Your task to perform on an android device: Find coffee shops on Maps Image 0: 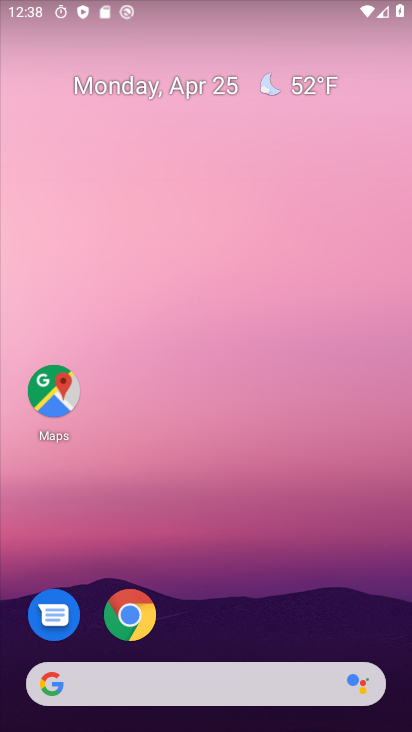
Step 0: drag from (211, 650) to (153, 33)
Your task to perform on an android device: Find coffee shops on Maps Image 1: 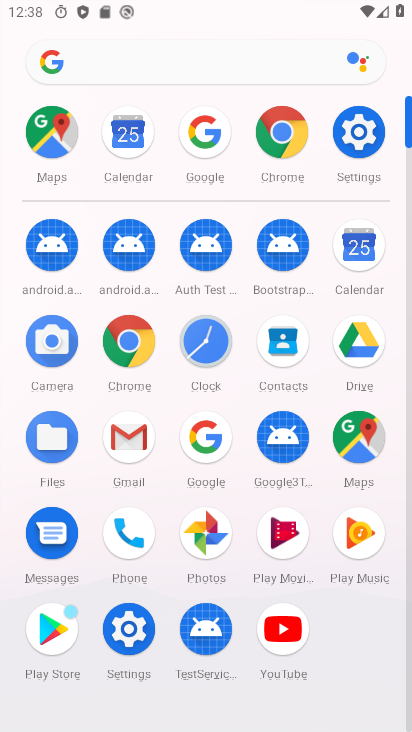
Step 1: click (350, 443)
Your task to perform on an android device: Find coffee shops on Maps Image 2: 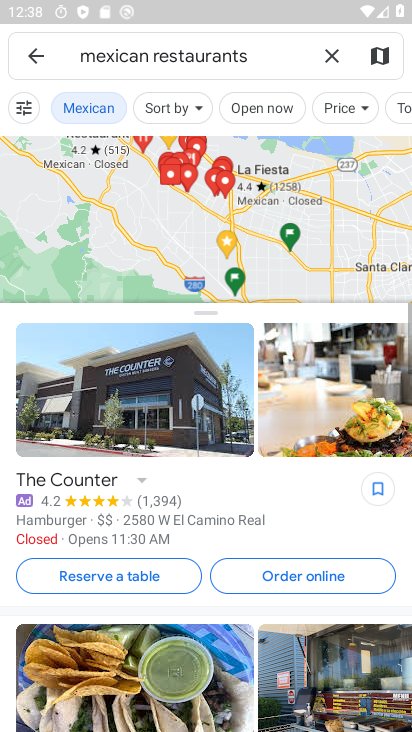
Step 2: click (317, 60)
Your task to perform on an android device: Find coffee shops on Maps Image 3: 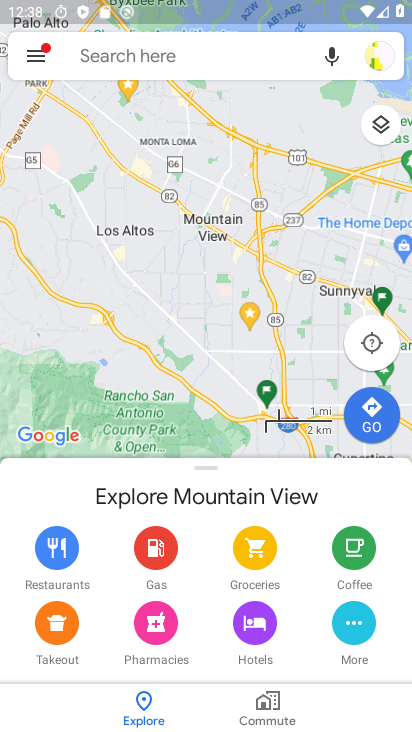
Step 3: click (168, 61)
Your task to perform on an android device: Find coffee shops on Maps Image 4: 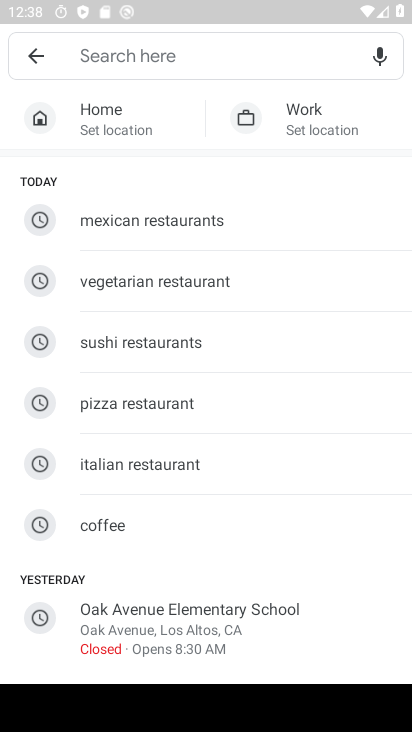
Step 4: click (109, 515)
Your task to perform on an android device: Find coffee shops on Maps Image 5: 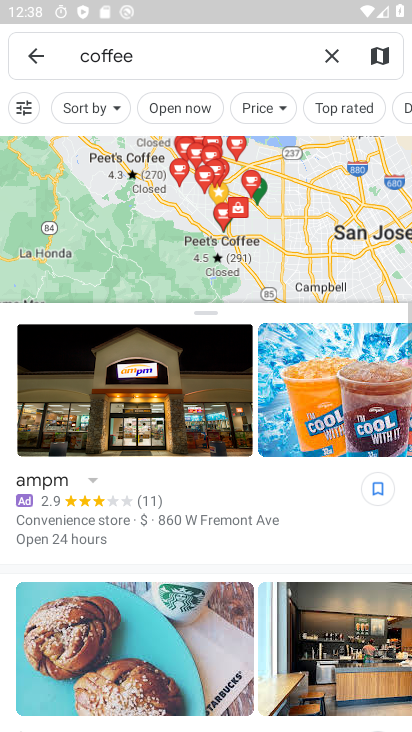
Step 5: task complete